Your task to perform on an android device: Open Yahoo.com Image 0: 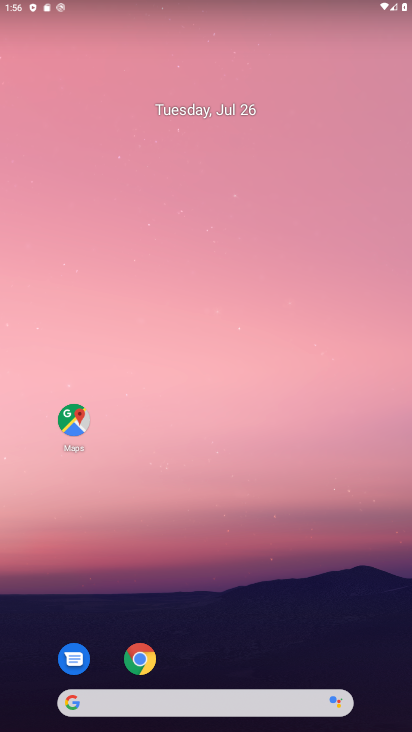
Step 0: click (73, 707)
Your task to perform on an android device: Open Yahoo.com Image 1: 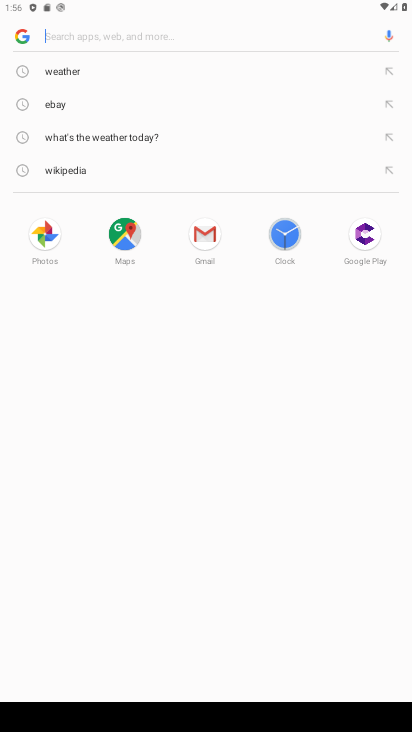
Step 1: type "Yahoo.com"
Your task to perform on an android device: Open Yahoo.com Image 2: 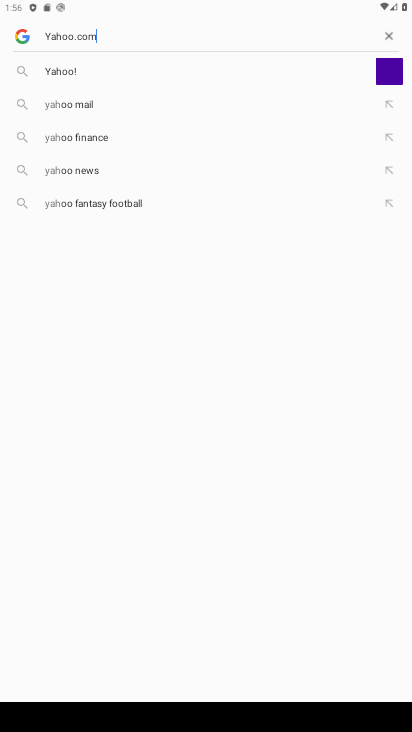
Step 2: press enter
Your task to perform on an android device: Open Yahoo.com Image 3: 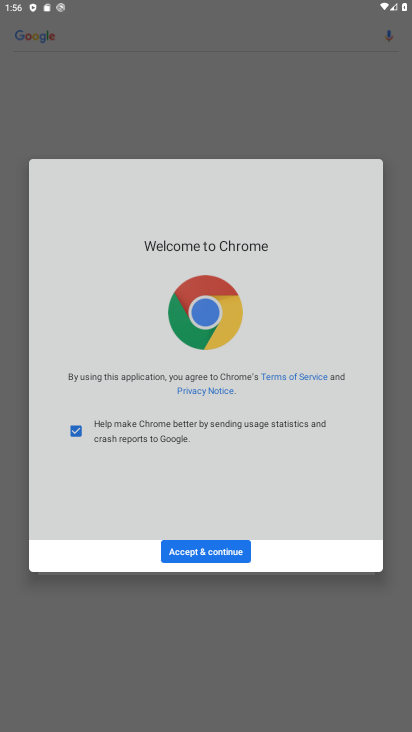
Step 3: click (204, 558)
Your task to perform on an android device: Open Yahoo.com Image 4: 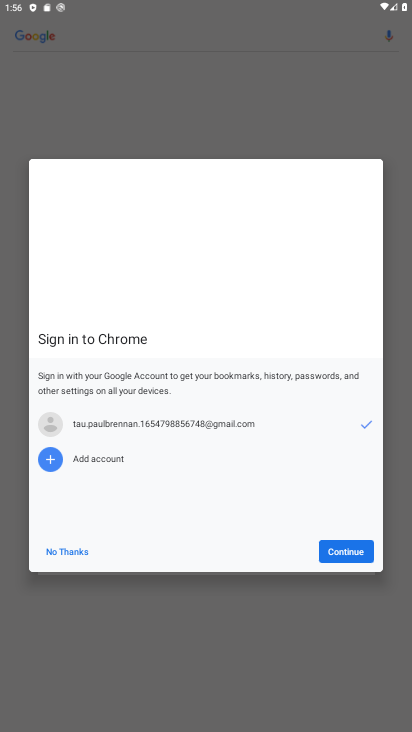
Step 4: click (338, 549)
Your task to perform on an android device: Open Yahoo.com Image 5: 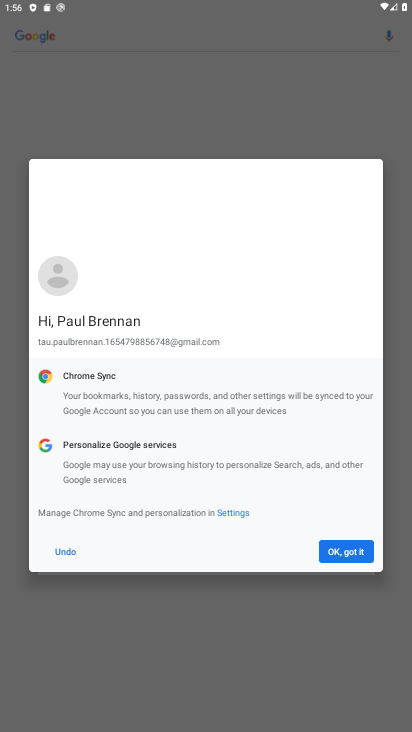
Step 5: click (338, 549)
Your task to perform on an android device: Open Yahoo.com Image 6: 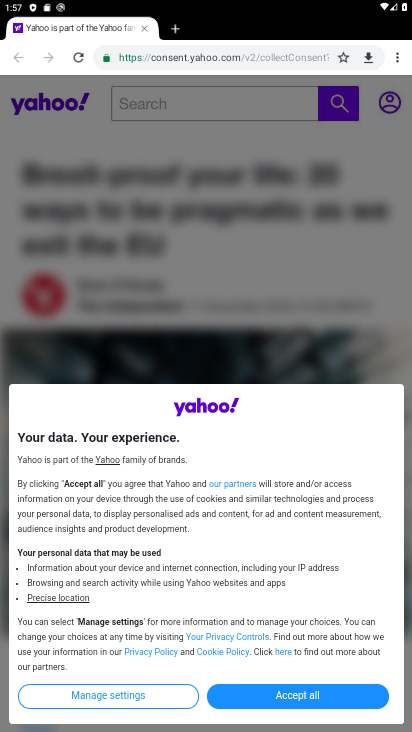
Step 6: click (256, 700)
Your task to perform on an android device: Open Yahoo.com Image 7: 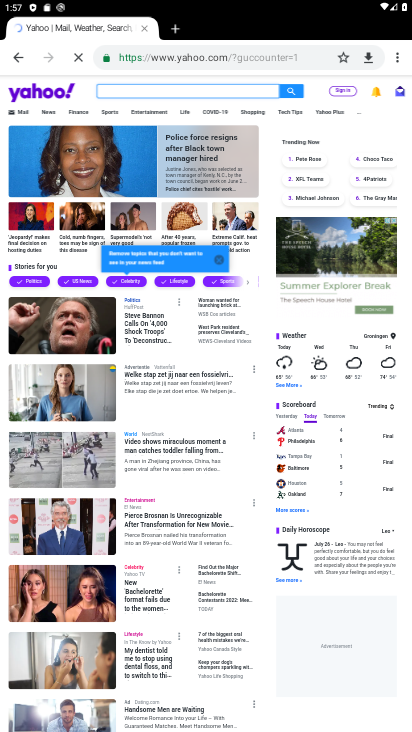
Step 7: task complete